Your task to perform on an android device: snooze an email in the gmail app Image 0: 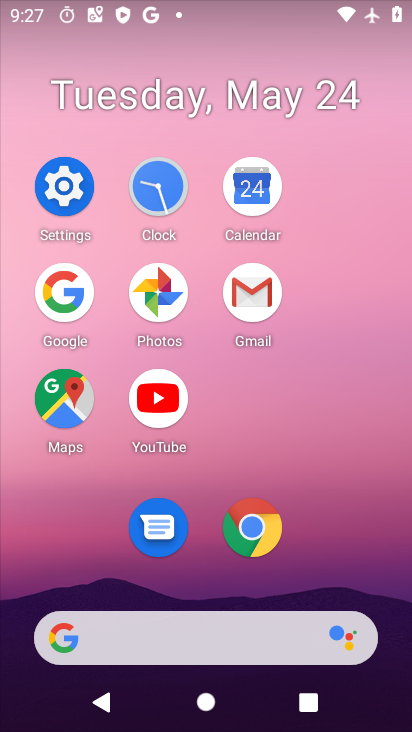
Step 0: click (268, 318)
Your task to perform on an android device: snooze an email in the gmail app Image 1: 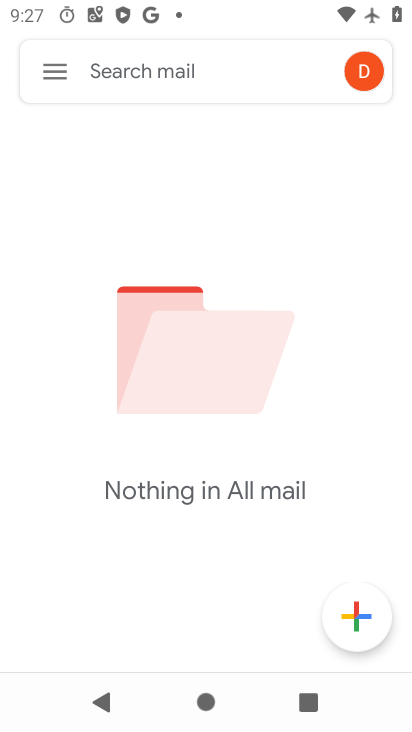
Step 1: click (56, 75)
Your task to perform on an android device: snooze an email in the gmail app Image 2: 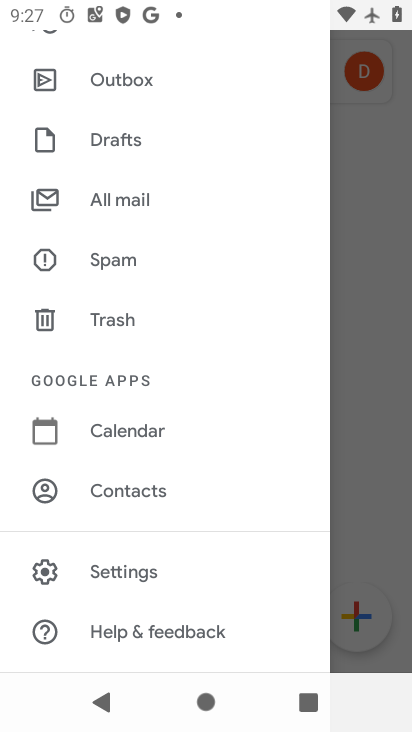
Step 2: click (134, 195)
Your task to perform on an android device: snooze an email in the gmail app Image 3: 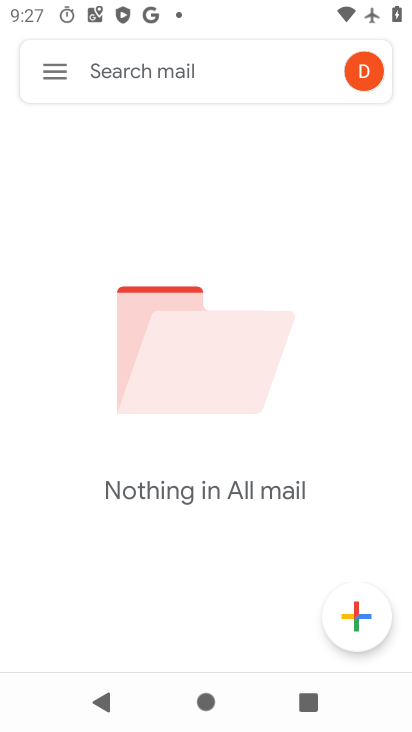
Step 3: task complete